Your task to perform on an android device: Do I have any events tomorrow? Image 0: 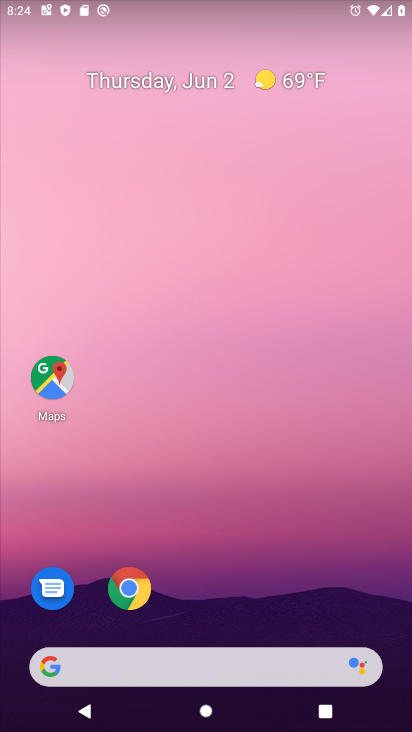
Step 0: drag from (247, 731) to (243, 213)
Your task to perform on an android device: Do I have any events tomorrow? Image 1: 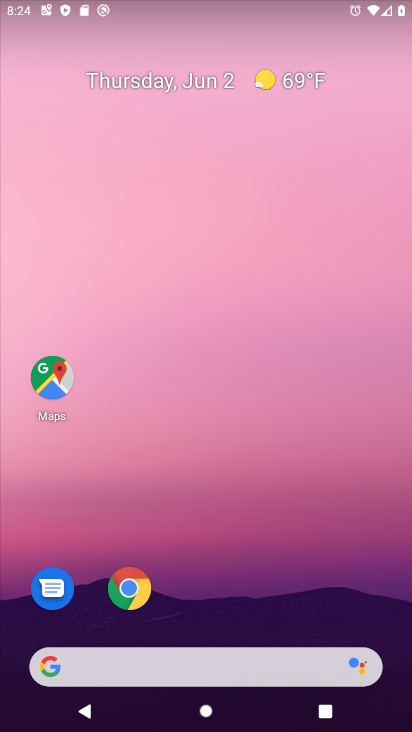
Step 1: drag from (224, 725) to (224, 101)
Your task to perform on an android device: Do I have any events tomorrow? Image 2: 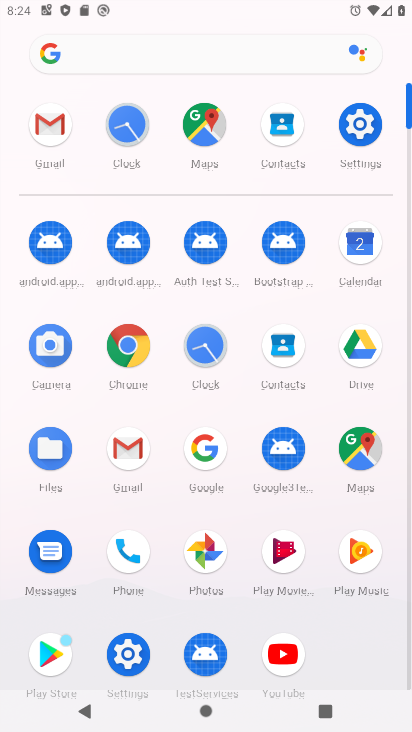
Step 2: click (362, 243)
Your task to perform on an android device: Do I have any events tomorrow? Image 3: 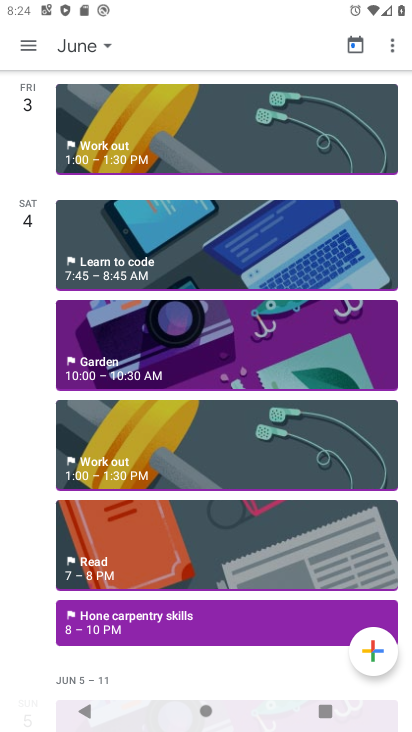
Step 3: click (25, 86)
Your task to perform on an android device: Do I have any events tomorrow? Image 4: 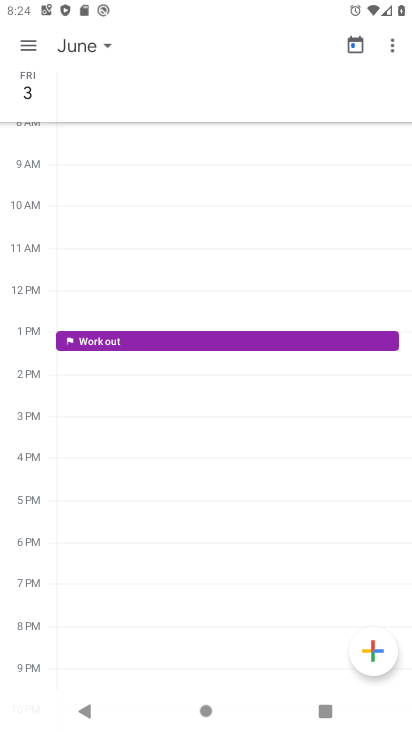
Step 4: task complete